Your task to perform on an android device: move an email to a new category in the gmail app Image 0: 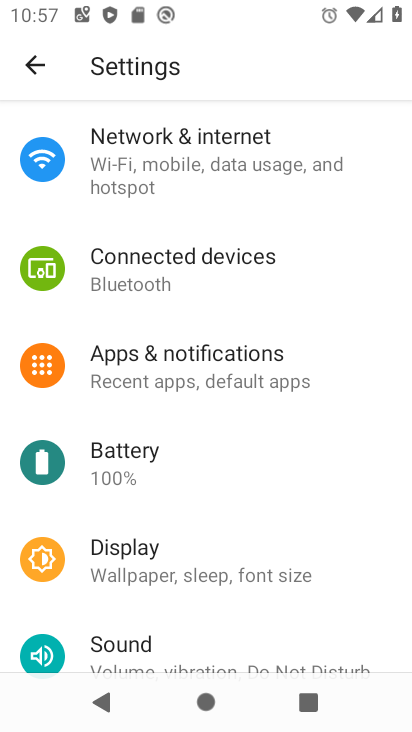
Step 0: press home button
Your task to perform on an android device: move an email to a new category in the gmail app Image 1: 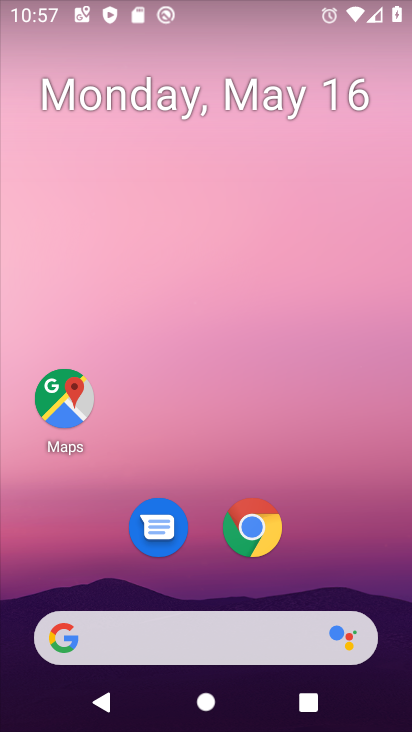
Step 1: drag from (336, 592) to (344, 24)
Your task to perform on an android device: move an email to a new category in the gmail app Image 2: 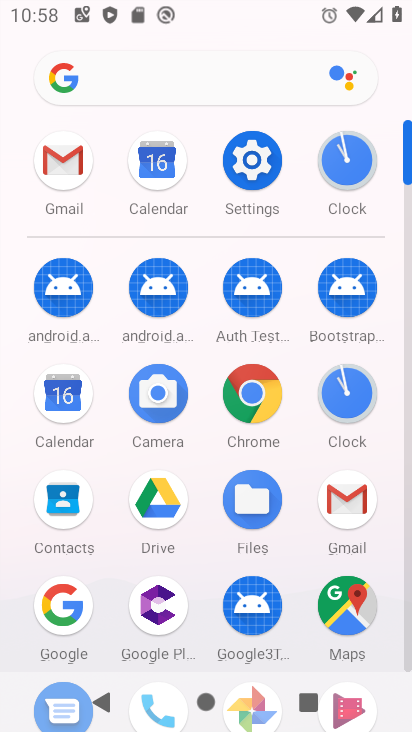
Step 2: click (62, 168)
Your task to perform on an android device: move an email to a new category in the gmail app Image 3: 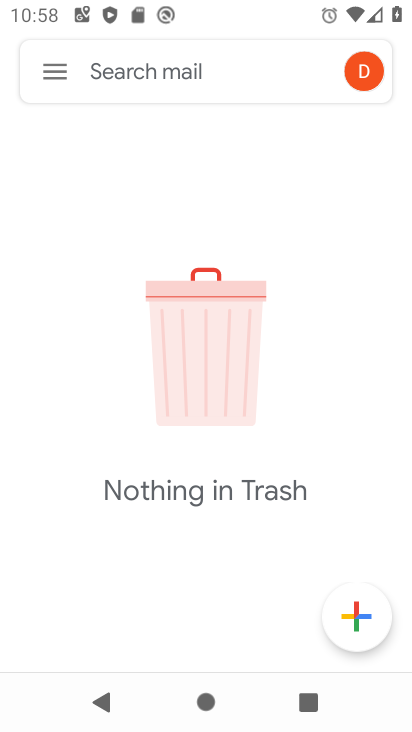
Step 3: click (58, 81)
Your task to perform on an android device: move an email to a new category in the gmail app Image 4: 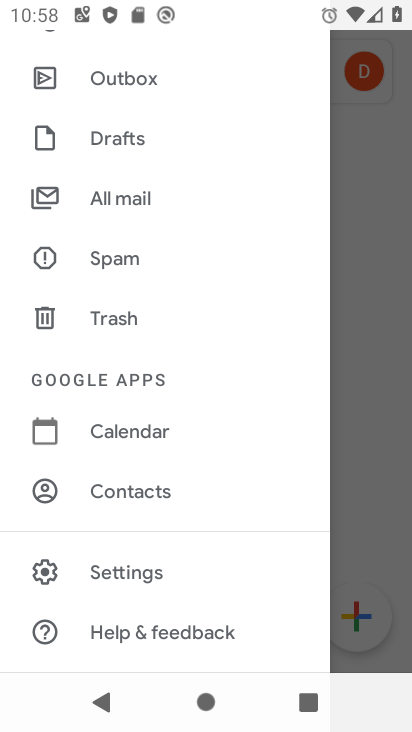
Step 4: click (98, 191)
Your task to perform on an android device: move an email to a new category in the gmail app Image 5: 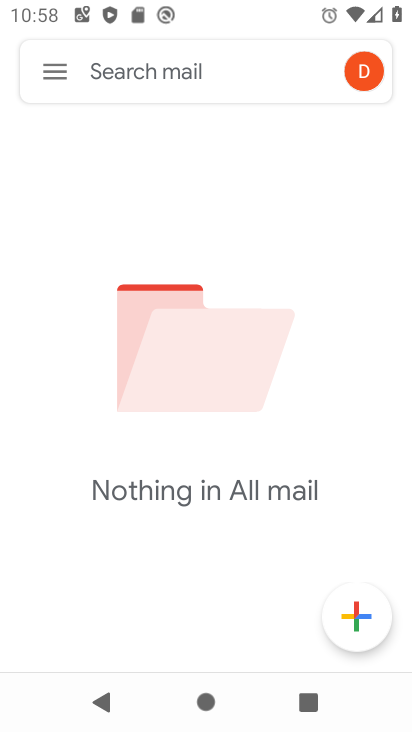
Step 5: task complete